Your task to perform on an android device: Go to calendar. Show me events next week Image 0: 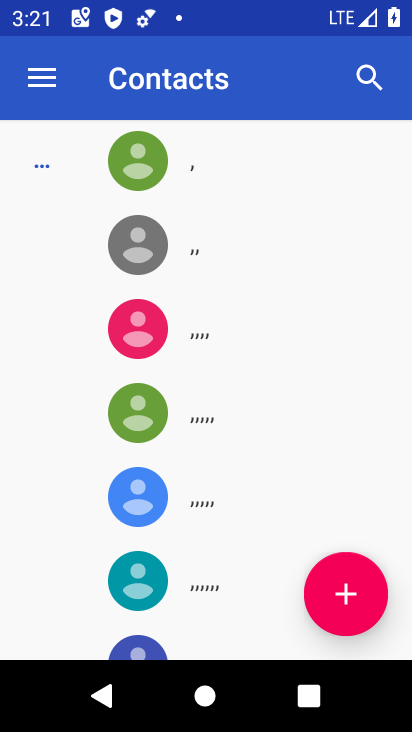
Step 0: press home button
Your task to perform on an android device: Go to calendar. Show me events next week Image 1: 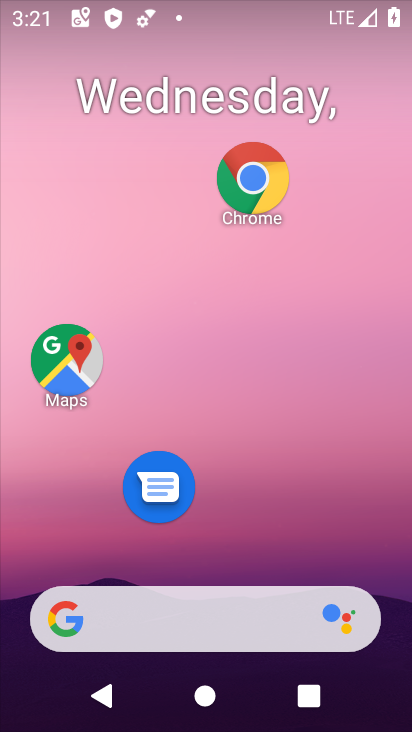
Step 1: drag from (232, 529) to (327, 79)
Your task to perform on an android device: Go to calendar. Show me events next week Image 2: 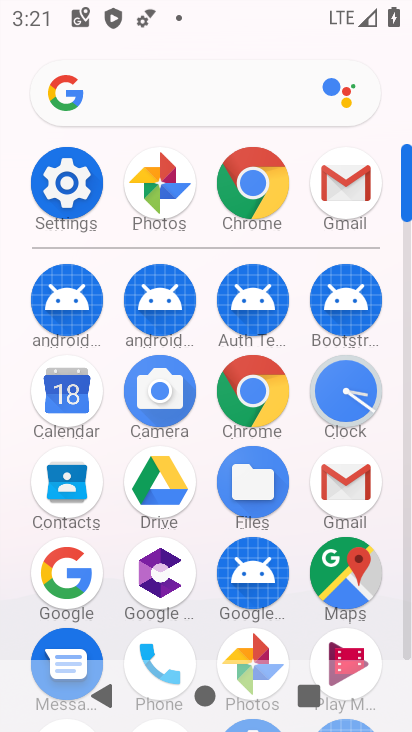
Step 2: click (52, 411)
Your task to perform on an android device: Go to calendar. Show me events next week Image 3: 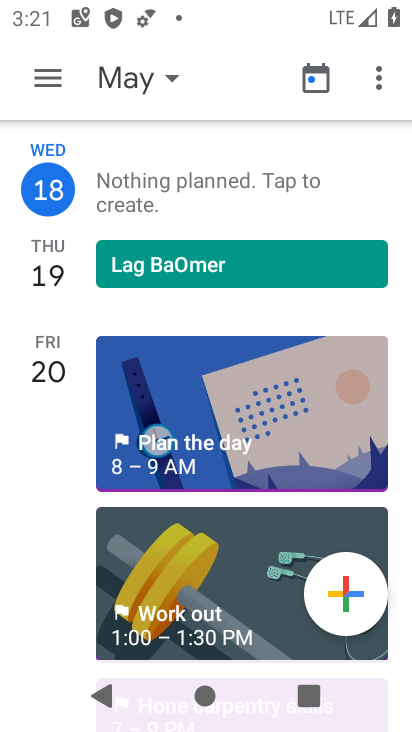
Step 3: click (163, 79)
Your task to perform on an android device: Go to calendar. Show me events next week Image 4: 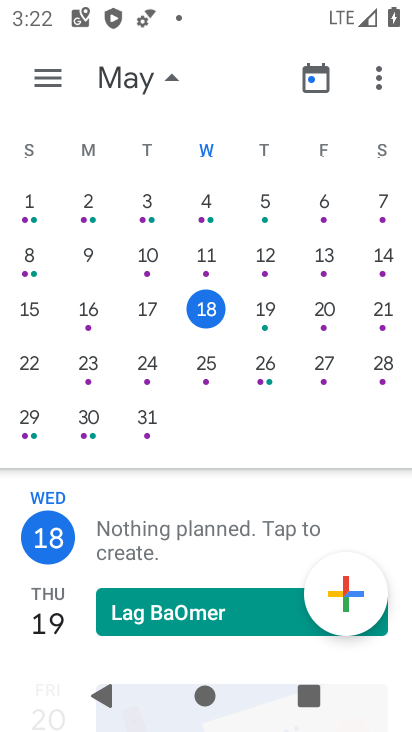
Step 4: click (43, 372)
Your task to perform on an android device: Go to calendar. Show me events next week Image 5: 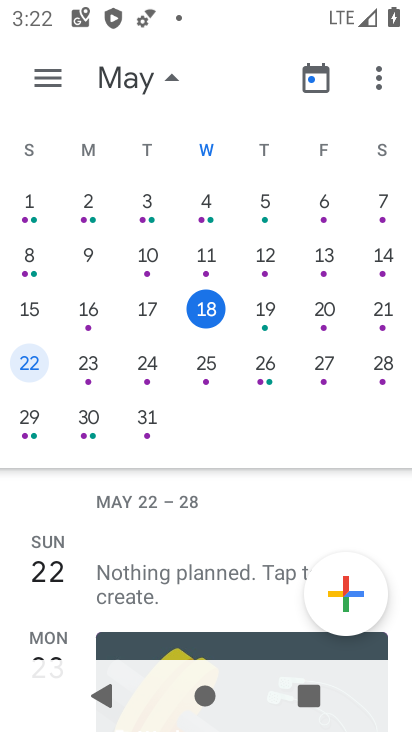
Step 5: task complete